Your task to perform on an android device: Open calendar and show me the fourth week of next month Image 0: 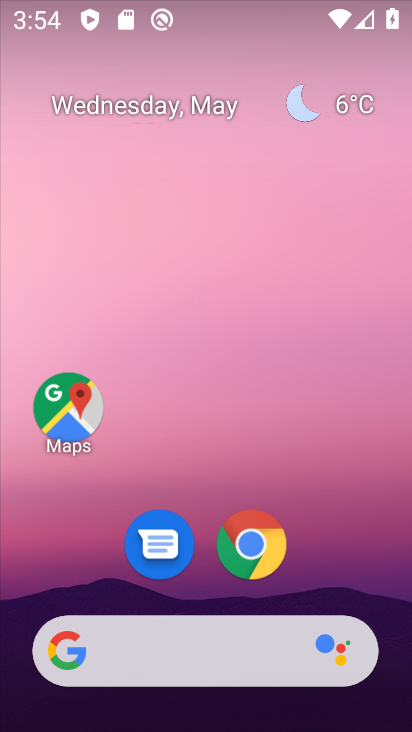
Step 0: drag from (34, 615) to (218, 283)
Your task to perform on an android device: Open calendar and show me the fourth week of next month Image 1: 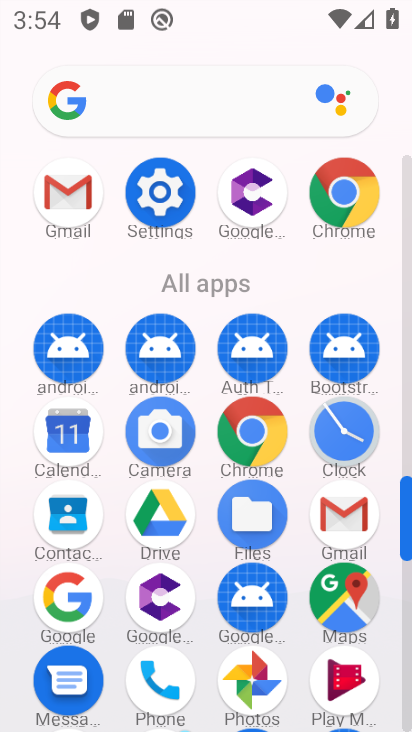
Step 1: drag from (156, 691) to (319, 177)
Your task to perform on an android device: Open calendar and show me the fourth week of next month Image 2: 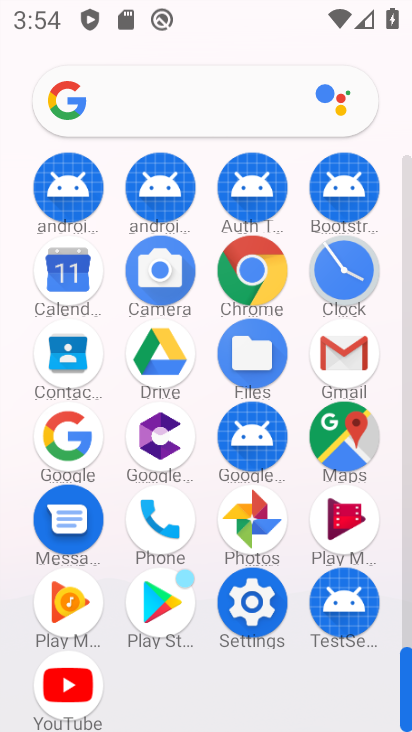
Step 2: drag from (269, 197) to (221, 635)
Your task to perform on an android device: Open calendar and show me the fourth week of next month Image 3: 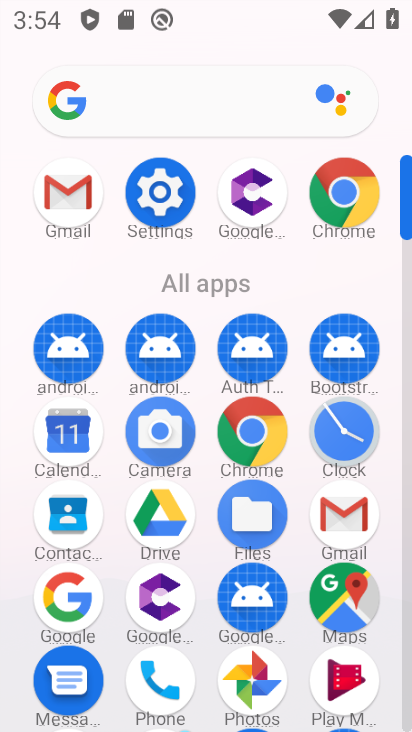
Step 3: click (70, 441)
Your task to perform on an android device: Open calendar and show me the fourth week of next month Image 4: 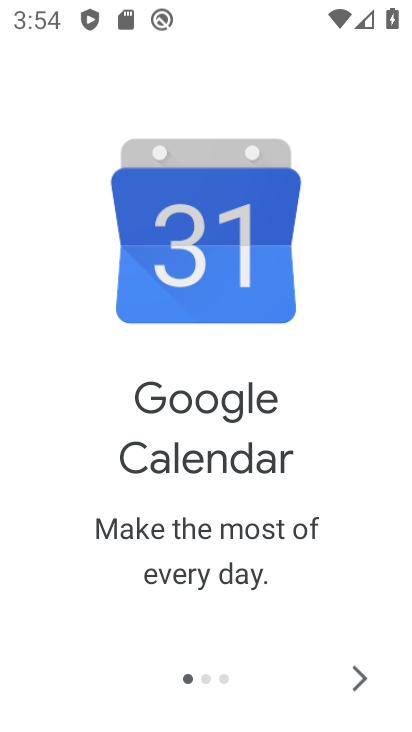
Step 4: click (352, 677)
Your task to perform on an android device: Open calendar and show me the fourth week of next month Image 5: 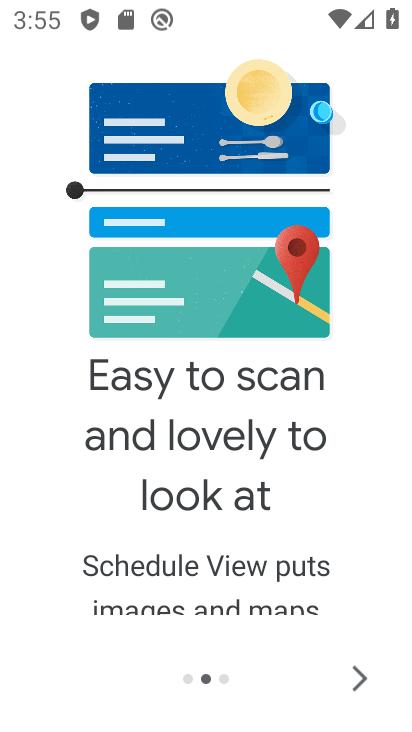
Step 5: click (353, 676)
Your task to perform on an android device: Open calendar and show me the fourth week of next month Image 6: 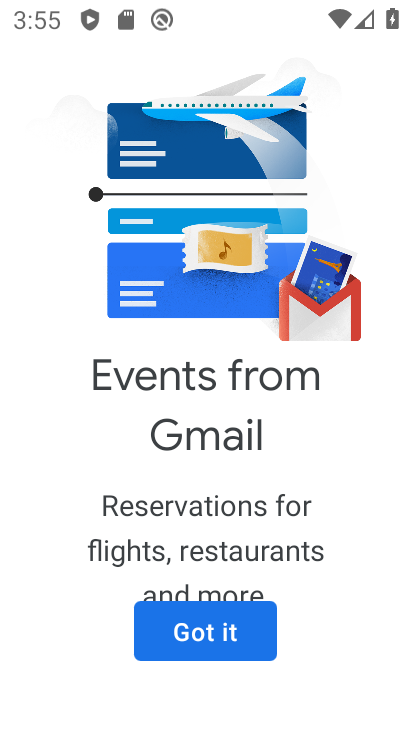
Step 6: click (183, 630)
Your task to perform on an android device: Open calendar and show me the fourth week of next month Image 7: 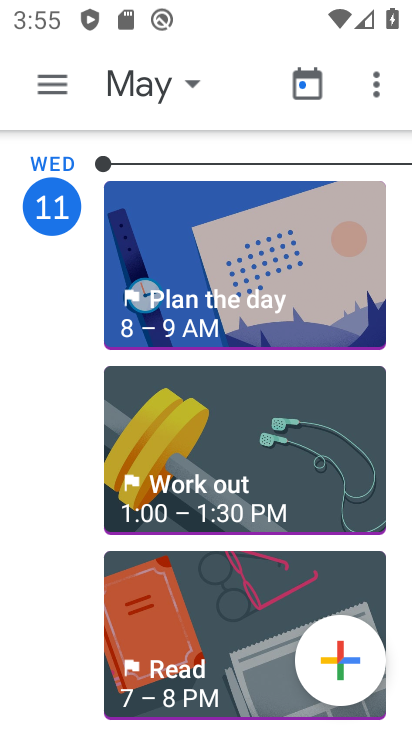
Step 7: task complete